Your task to perform on an android device: Open the stopwatch Image 0: 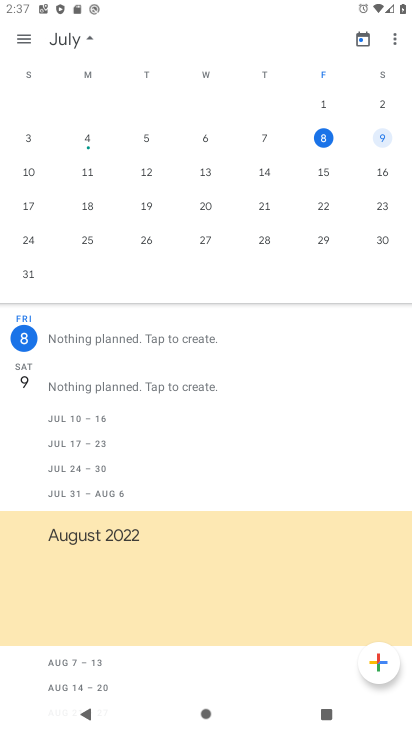
Step 0: press home button
Your task to perform on an android device: Open the stopwatch Image 1: 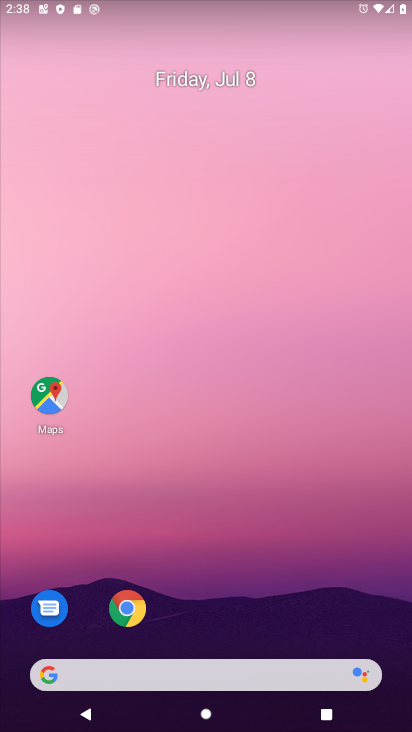
Step 1: drag from (157, 600) to (181, 182)
Your task to perform on an android device: Open the stopwatch Image 2: 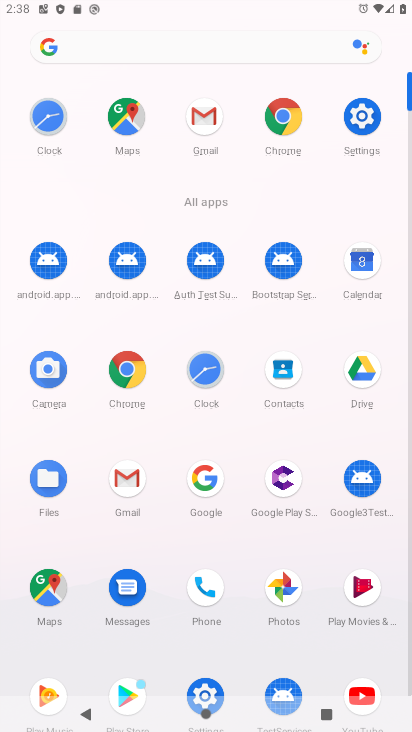
Step 2: click (60, 119)
Your task to perform on an android device: Open the stopwatch Image 3: 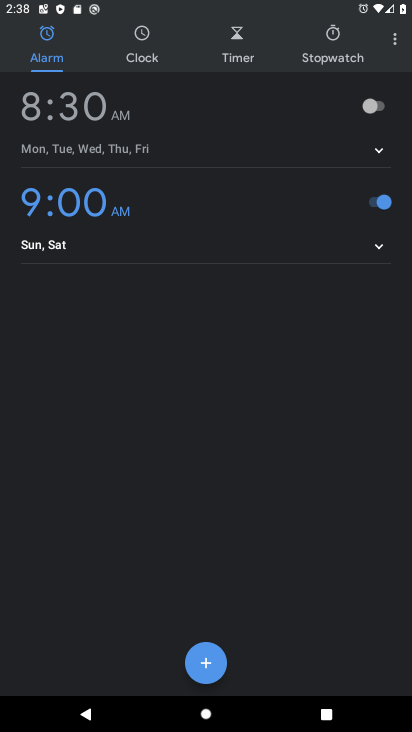
Step 3: click (356, 37)
Your task to perform on an android device: Open the stopwatch Image 4: 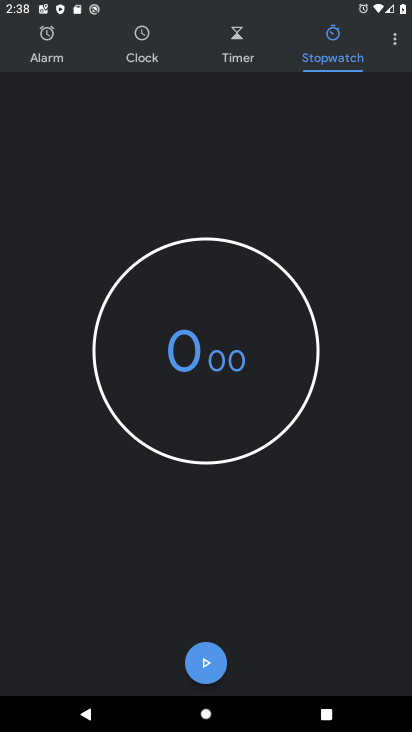
Step 4: task complete